Your task to perform on an android device: Open Yahoo.com Image 0: 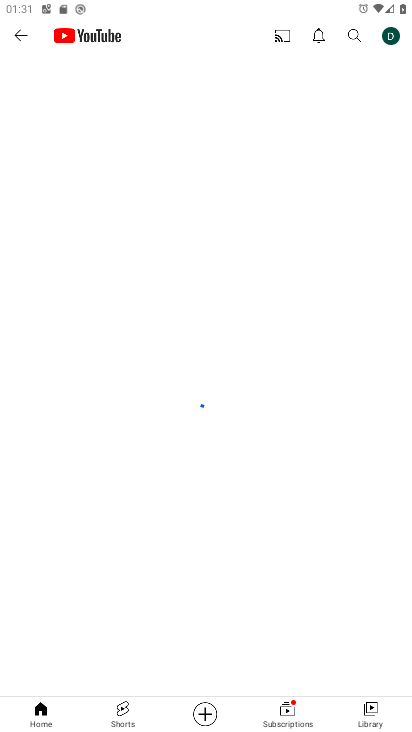
Step 0: drag from (224, 681) to (195, 562)
Your task to perform on an android device: Open Yahoo.com Image 1: 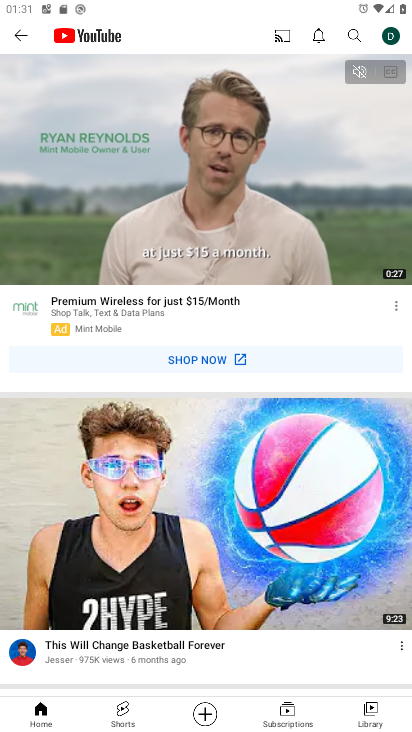
Step 1: press home button
Your task to perform on an android device: Open Yahoo.com Image 2: 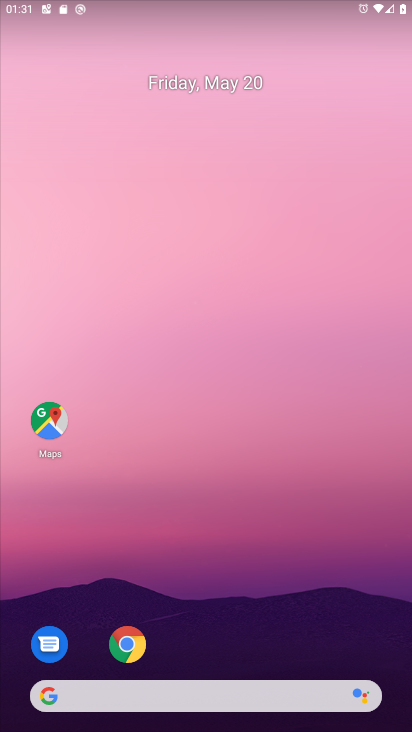
Step 2: drag from (151, 682) to (153, 430)
Your task to perform on an android device: Open Yahoo.com Image 3: 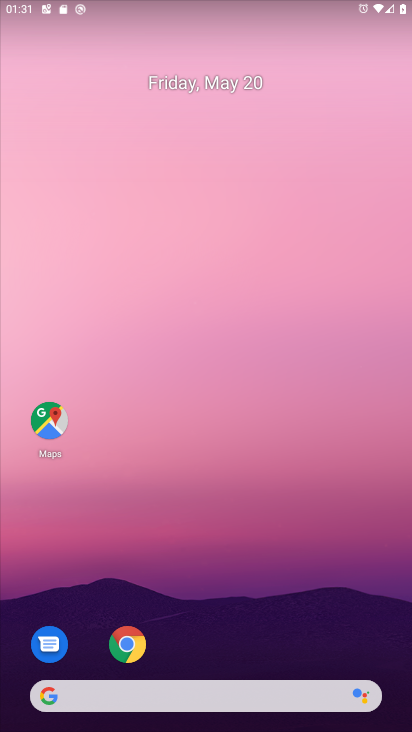
Step 3: click (131, 645)
Your task to perform on an android device: Open Yahoo.com Image 4: 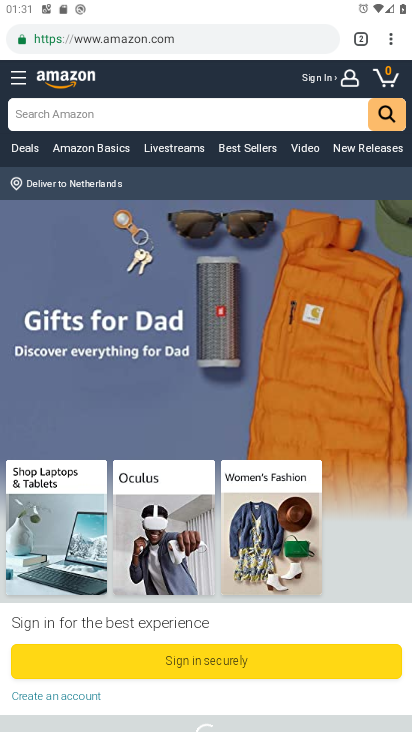
Step 4: click (364, 44)
Your task to perform on an android device: Open Yahoo.com Image 5: 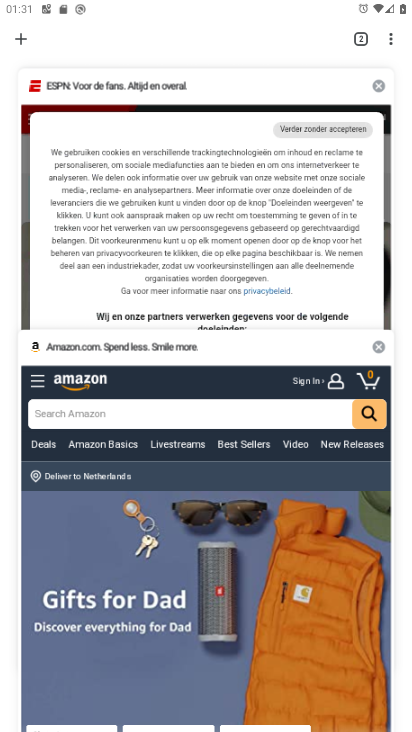
Step 5: click (376, 88)
Your task to perform on an android device: Open Yahoo.com Image 6: 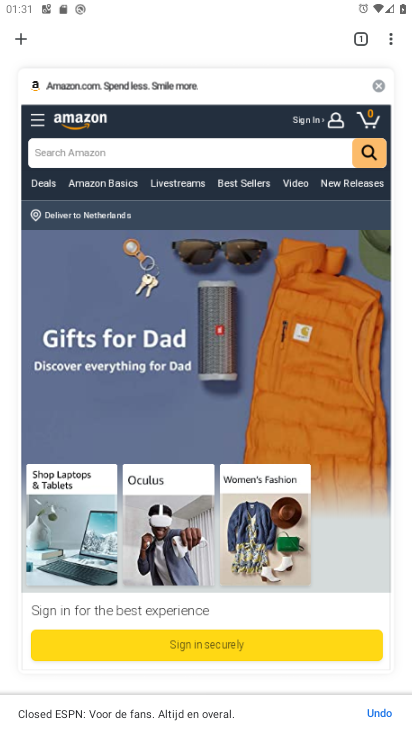
Step 6: click (376, 88)
Your task to perform on an android device: Open Yahoo.com Image 7: 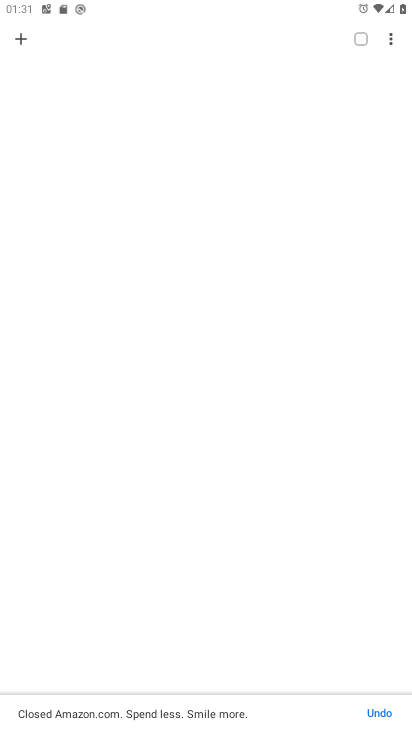
Step 7: click (19, 41)
Your task to perform on an android device: Open Yahoo.com Image 8: 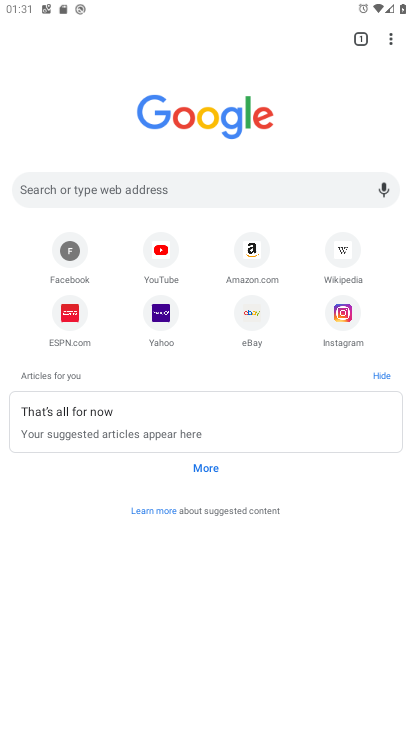
Step 8: click (155, 328)
Your task to perform on an android device: Open Yahoo.com Image 9: 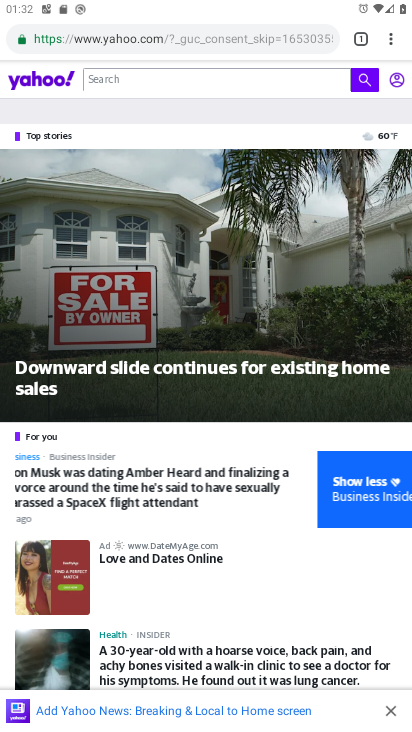
Step 9: task complete